Your task to perform on an android device: manage bookmarks in the chrome app Image 0: 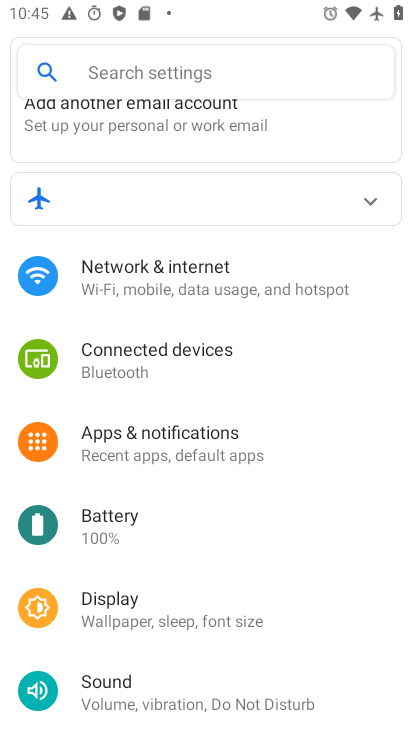
Step 0: press home button
Your task to perform on an android device: manage bookmarks in the chrome app Image 1: 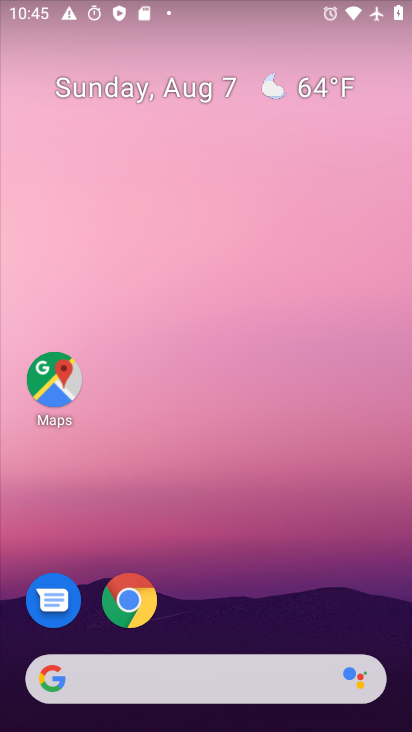
Step 1: drag from (232, 674) to (296, 310)
Your task to perform on an android device: manage bookmarks in the chrome app Image 2: 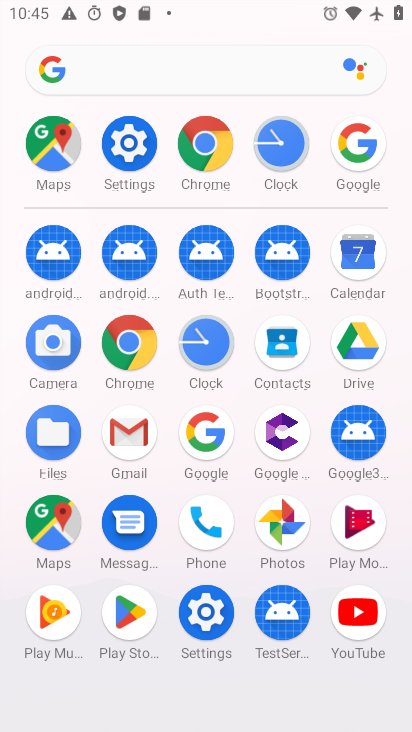
Step 2: click (208, 147)
Your task to perform on an android device: manage bookmarks in the chrome app Image 3: 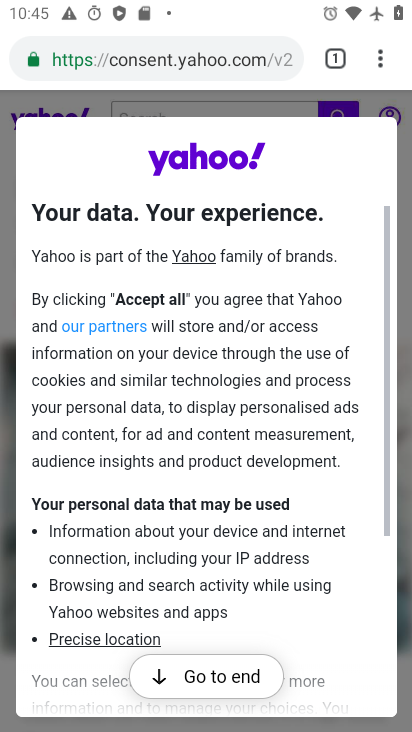
Step 3: click (385, 65)
Your task to perform on an android device: manage bookmarks in the chrome app Image 4: 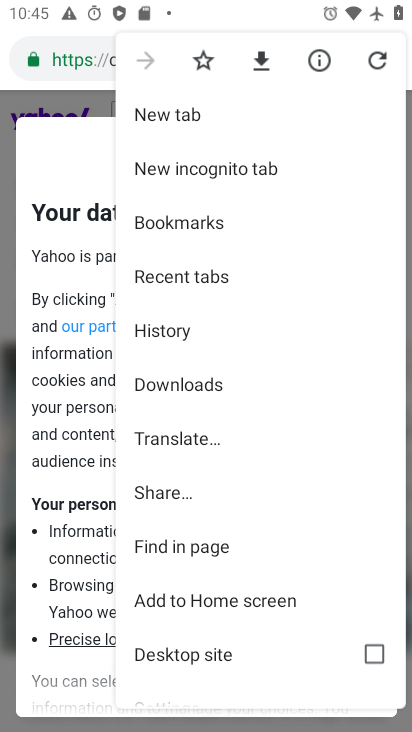
Step 4: click (177, 222)
Your task to perform on an android device: manage bookmarks in the chrome app Image 5: 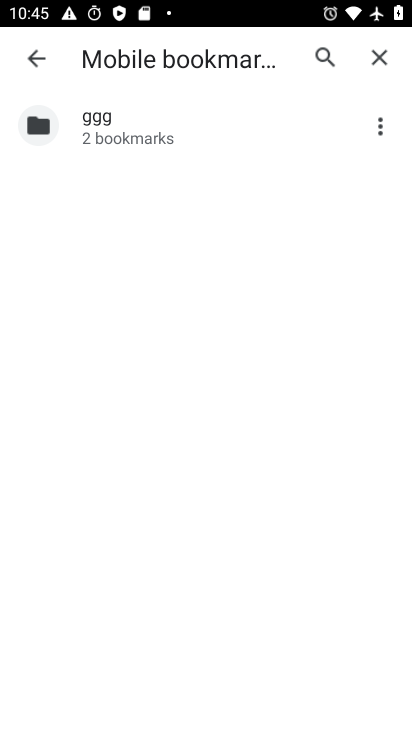
Step 5: task complete